Your task to perform on an android device: Open settings Image 0: 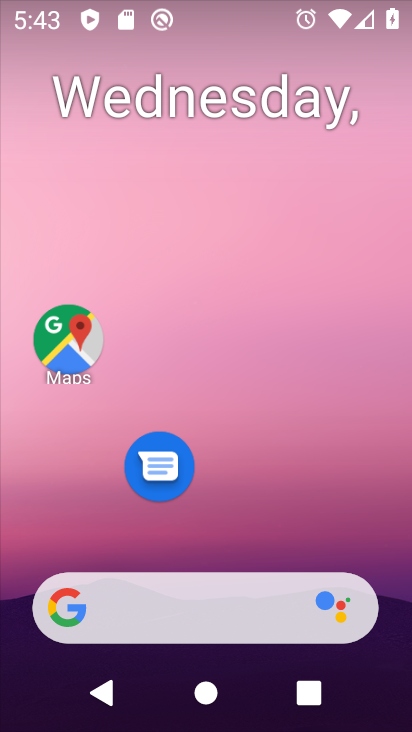
Step 0: drag from (256, 507) to (273, 120)
Your task to perform on an android device: Open settings Image 1: 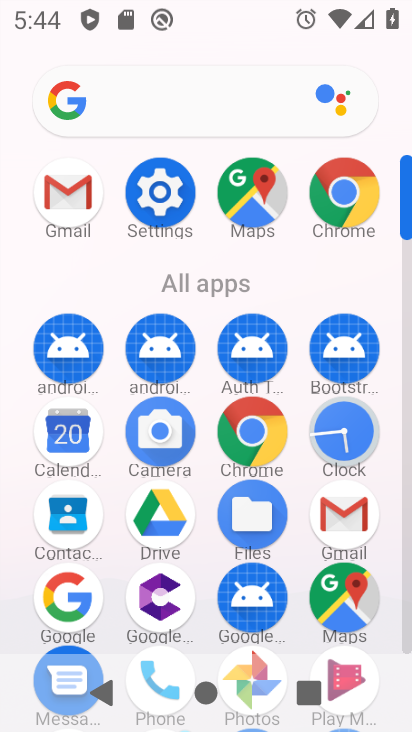
Step 1: click (172, 195)
Your task to perform on an android device: Open settings Image 2: 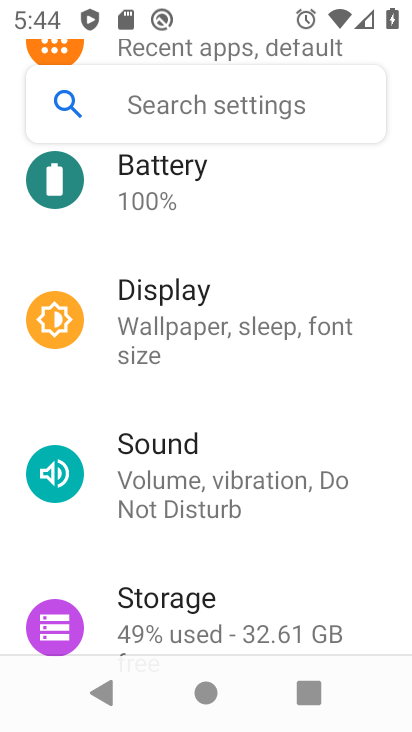
Step 2: task complete